Your task to perform on an android device: search for starred emails in the gmail app Image 0: 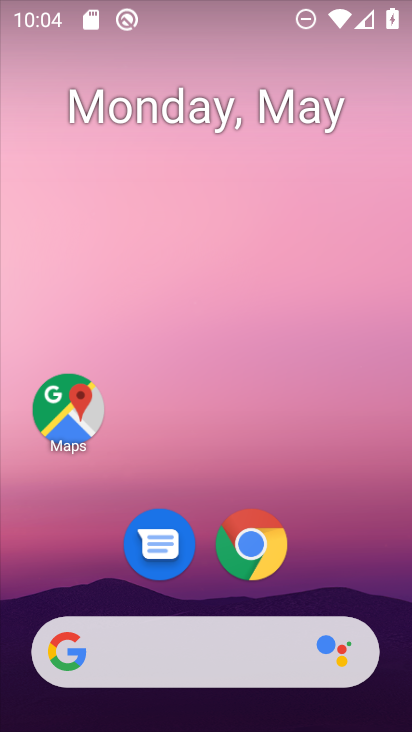
Step 0: drag from (315, 580) to (265, 237)
Your task to perform on an android device: search for starred emails in the gmail app Image 1: 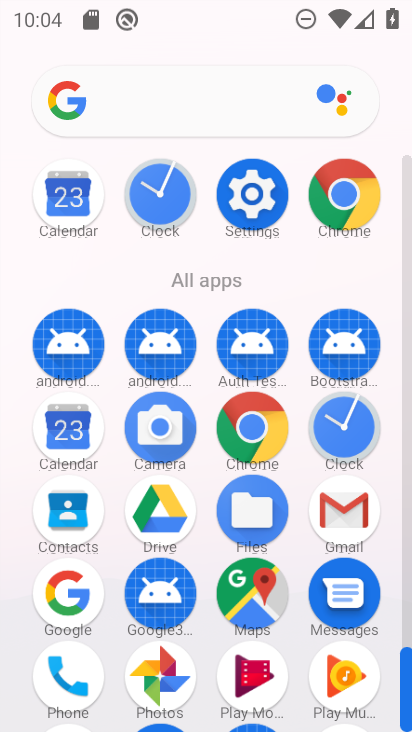
Step 1: click (350, 512)
Your task to perform on an android device: search for starred emails in the gmail app Image 2: 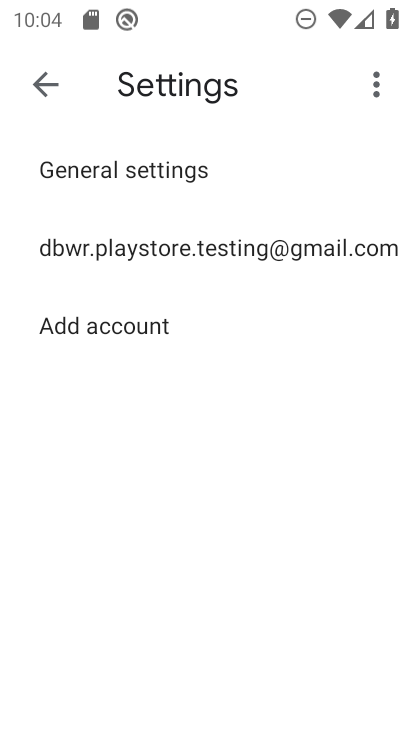
Step 2: click (51, 88)
Your task to perform on an android device: search for starred emails in the gmail app Image 3: 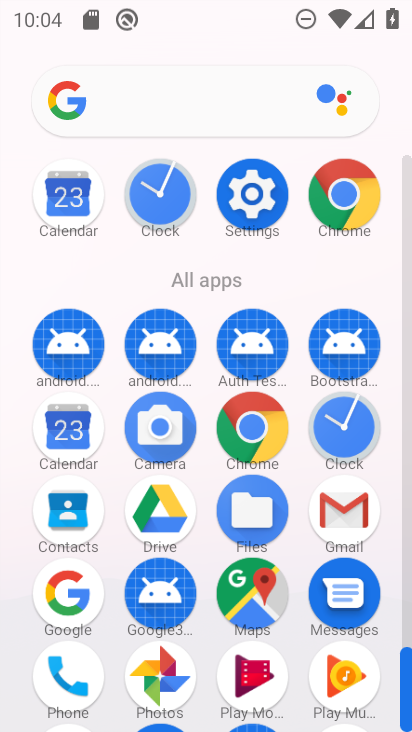
Step 3: click (336, 507)
Your task to perform on an android device: search for starred emails in the gmail app Image 4: 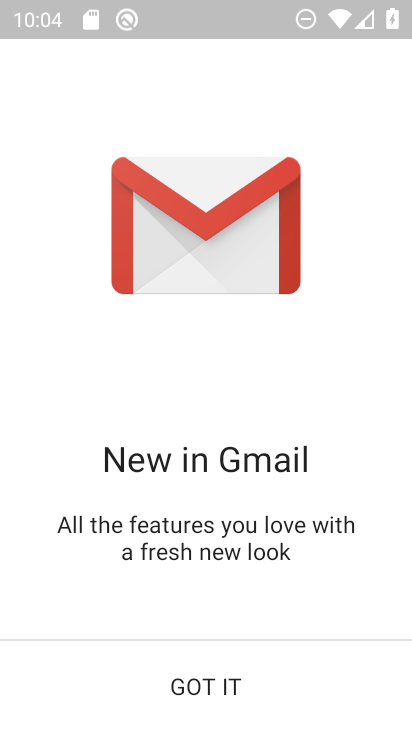
Step 4: click (211, 701)
Your task to perform on an android device: search for starred emails in the gmail app Image 5: 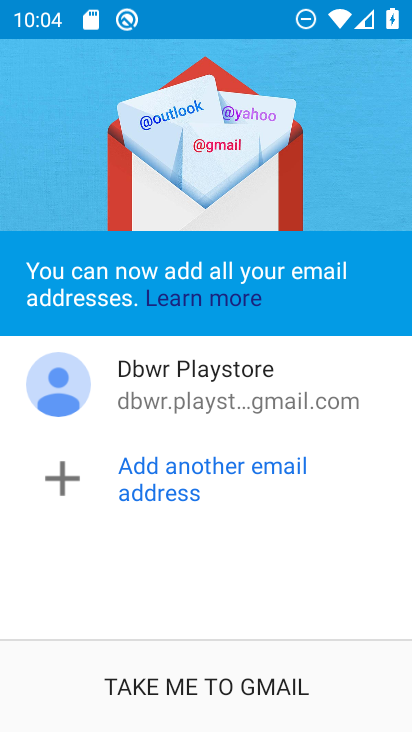
Step 5: click (211, 701)
Your task to perform on an android device: search for starred emails in the gmail app Image 6: 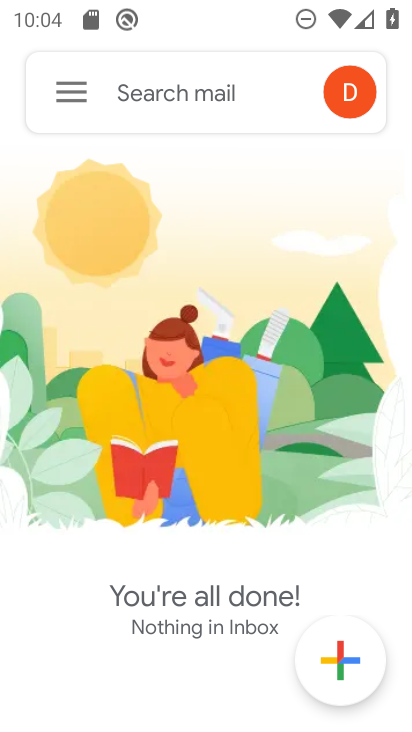
Step 6: click (74, 92)
Your task to perform on an android device: search for starred emails in the gmail app Image 7: 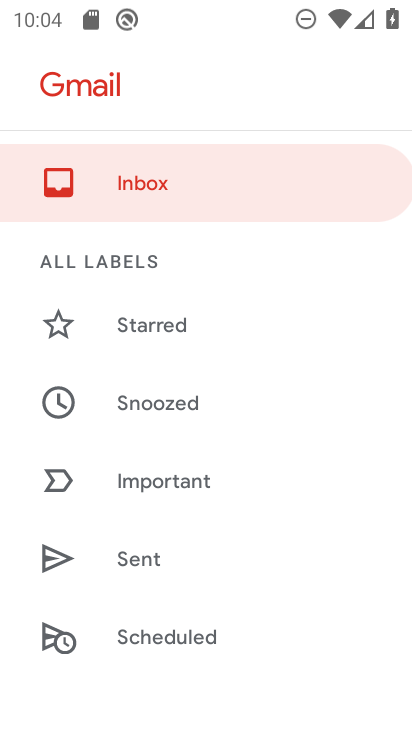
Step 7: click (158, 329)
Your task to perform on an android device: search for starred emails in the gmail app Image 8: 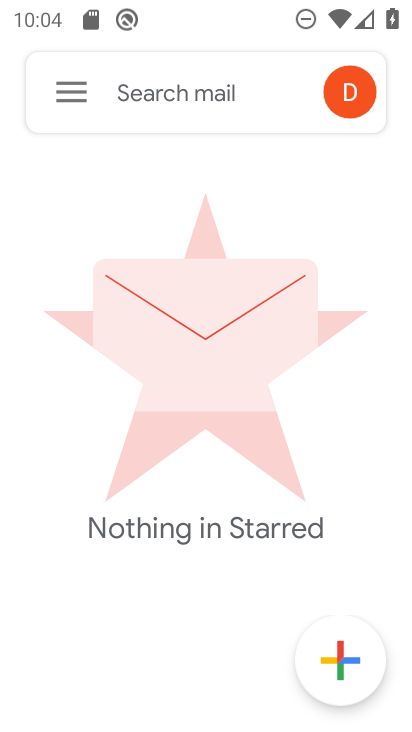
Step 8: task complete